Your task to perform on an android device: turn pop-ups on in chrome Image 0: 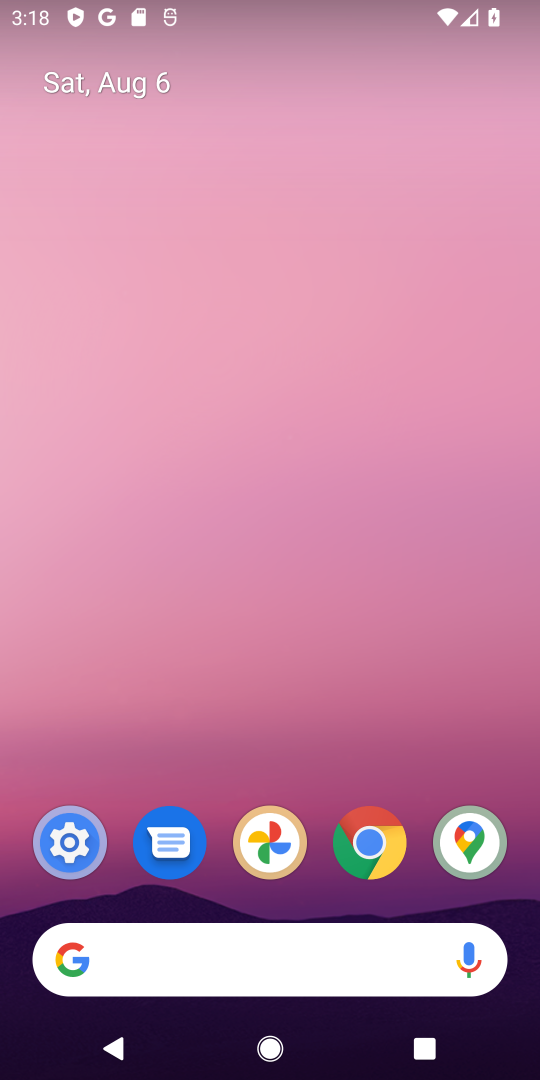
Step 0: click (343, 846)
Your task to perform on an android device: turn pop-ups on in chrome Image 1: 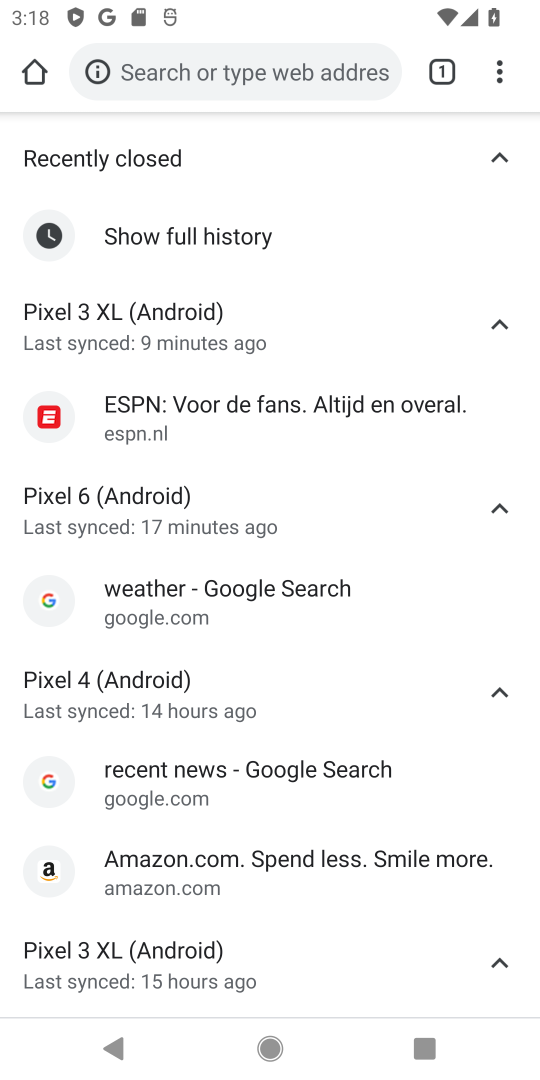
Step 1: press home button
Your task to perform on an android device: turn pop-ups on in chrome Image 2: 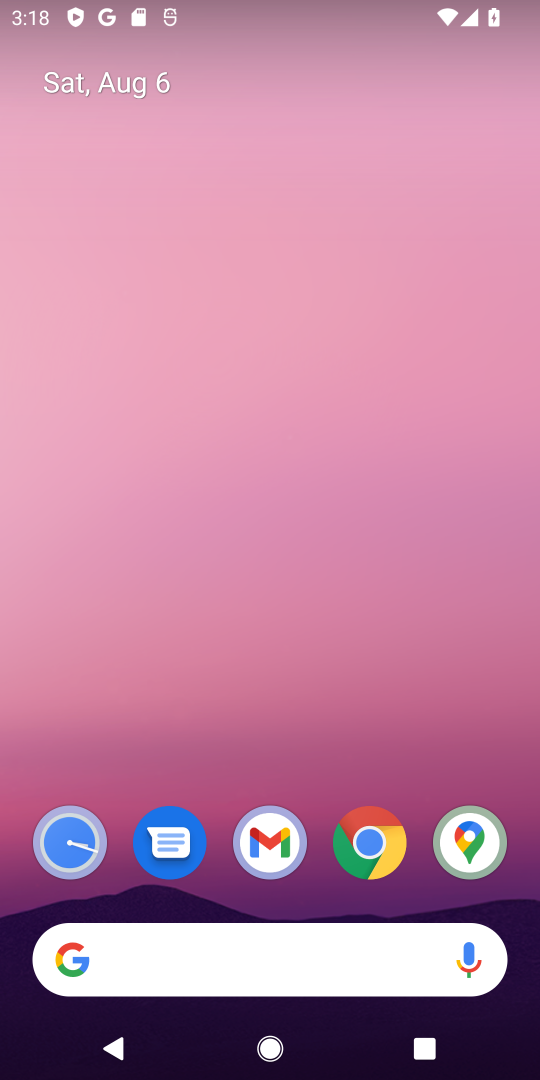
Step 2: click (364, 843)
Your task to perform on an android device: turn pop-ups on in chrome Image 3: 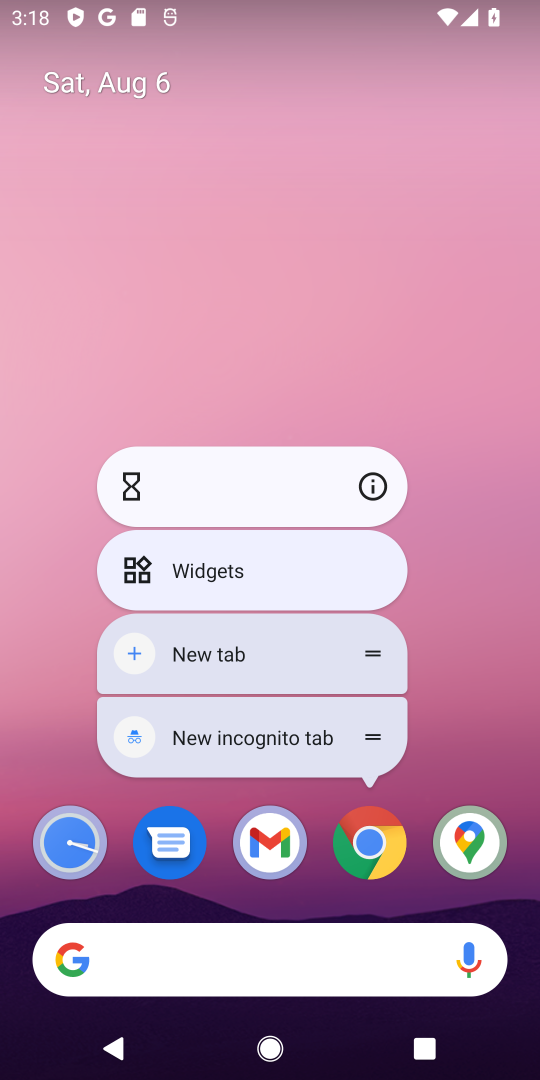
Step 3: click (371, 487)
Your task to perform on an android device: turn pop-ups on in chrome Image 4: 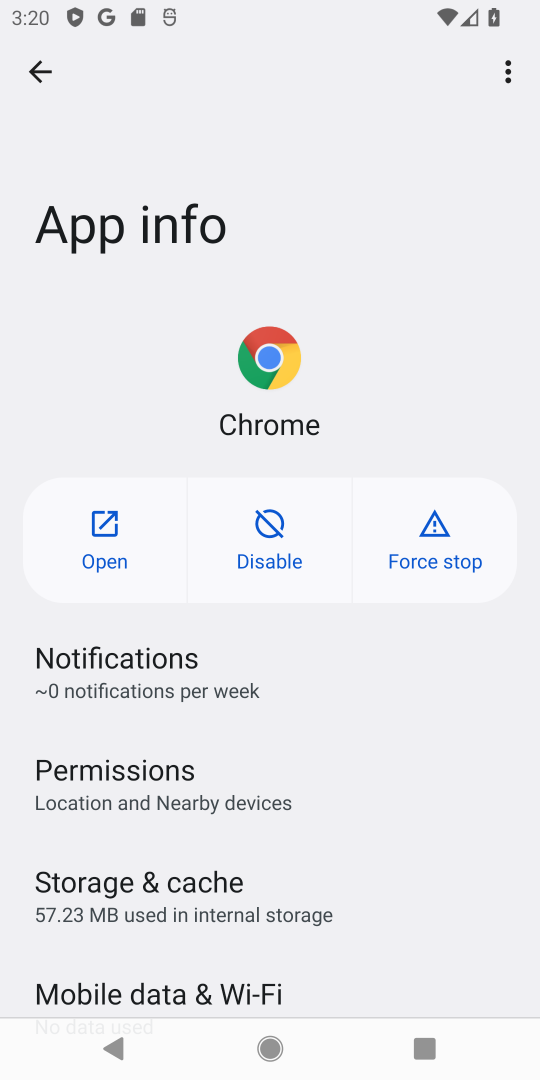
Step 4: drag from (379, 929) to (386, 427)
Your task to perform on an android device: turn pop-ups on in chrome Image 5: 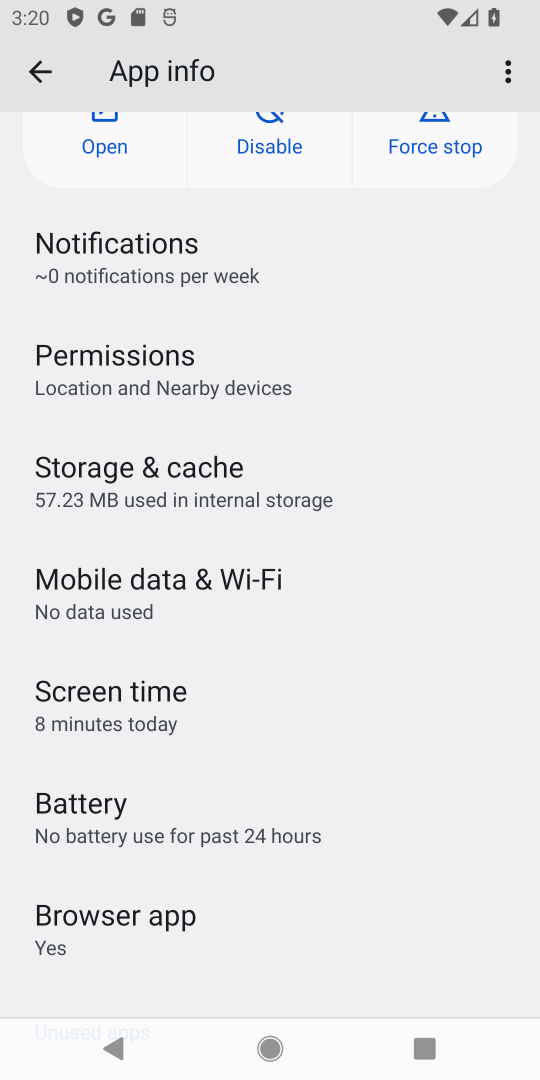
Step 5: drag from (404, 940) to (362, 429)
Your task to perform on an android device: turn pop-ups on in chrome Image 6: 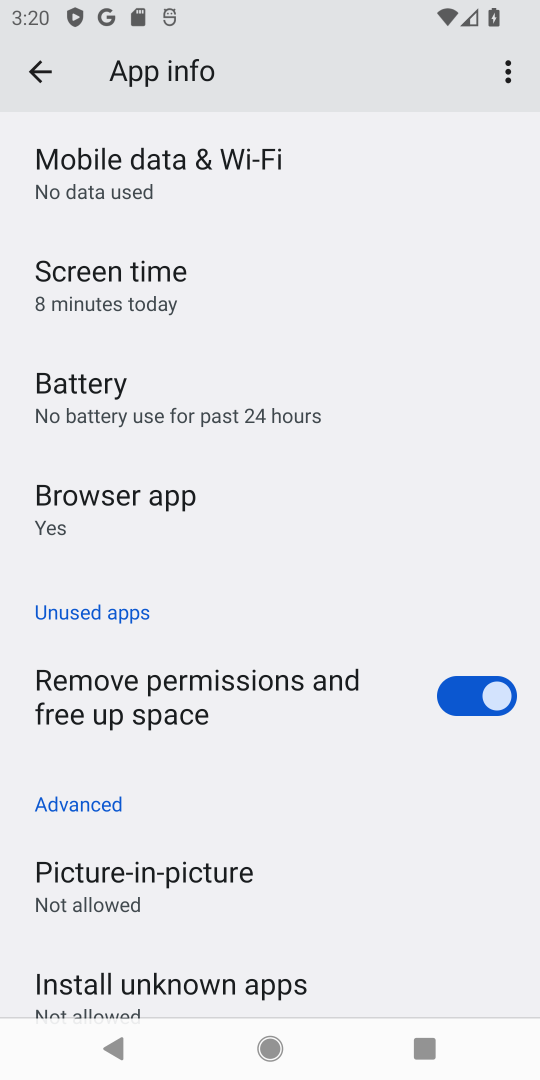
Step 6: drag from (340, 923) to (352, 539)
Your task to perform on an android device: turn pop-ups on in chrome Image 7: 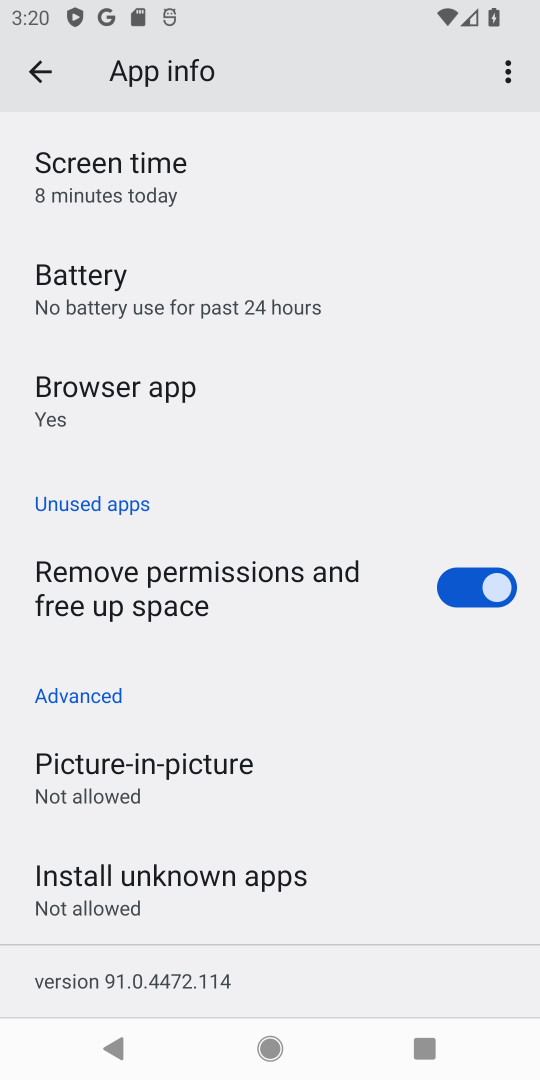
Step 7: click (103, 784)
Your task to perform on an android device: turn pop-ups on in chrome Image 8: 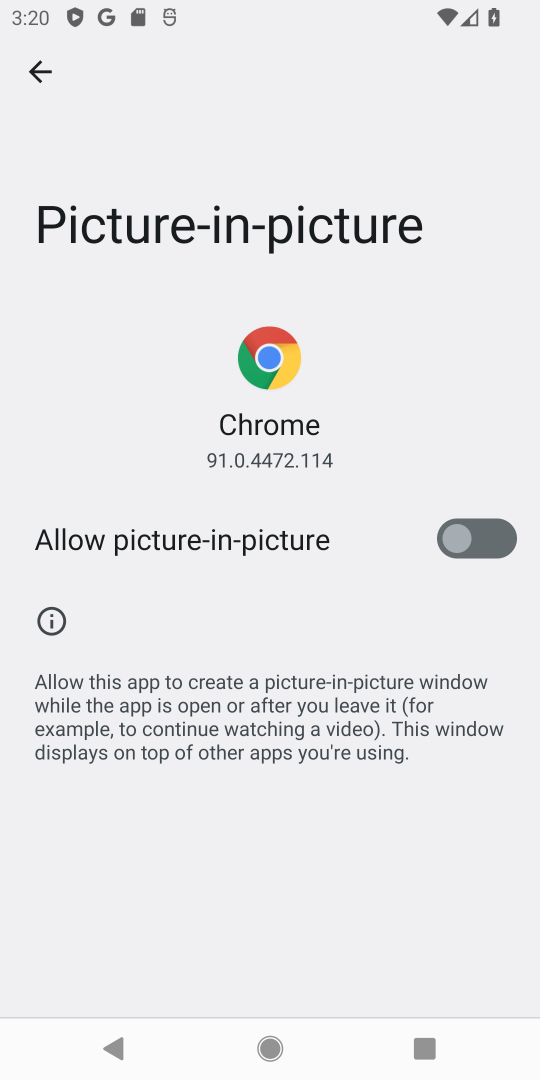
Step 8: click (489, 537)
Your task to perform on an android device: turn pop-ups on in chrome Image 9: 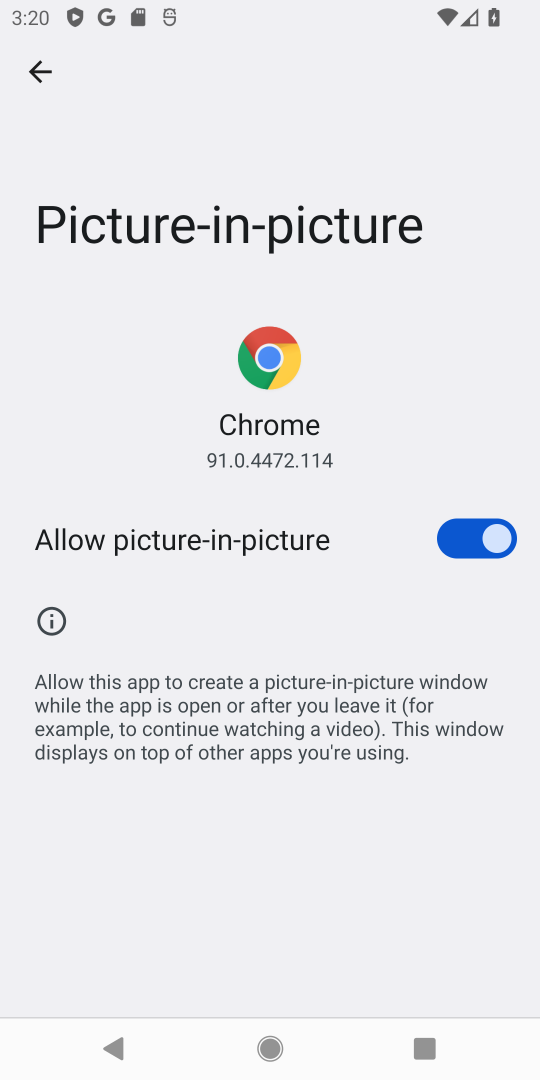
Step 9: task complete